Your task to perform on an android device: Open my contact list Image 0: 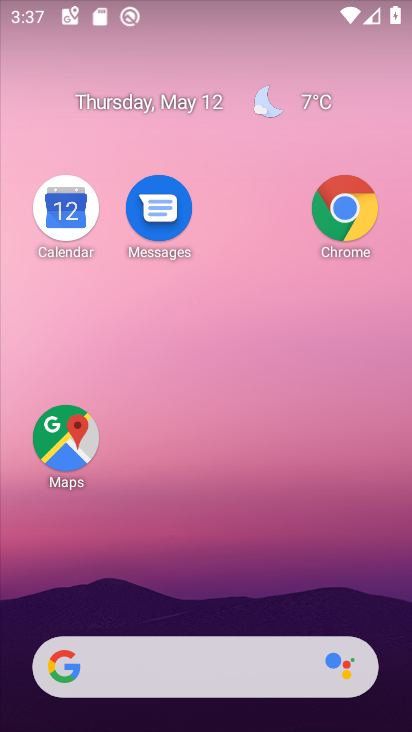
Step 0: click (224, 228)
Your task to perform on an android device: Open my contact list Image 1: 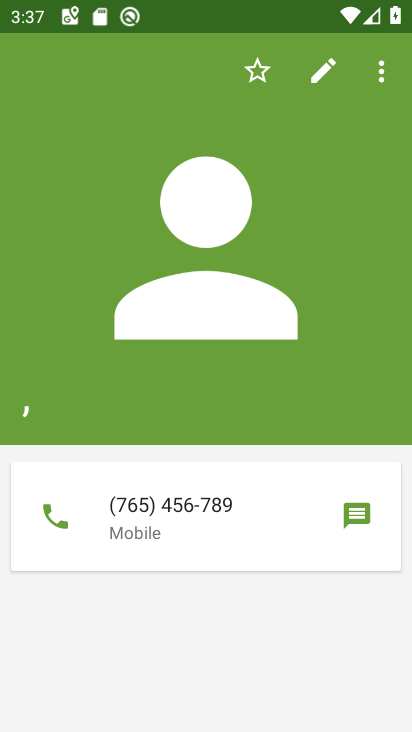
Step 1: press home button
Your task to perform on an android device: Open my contact list Image 2: 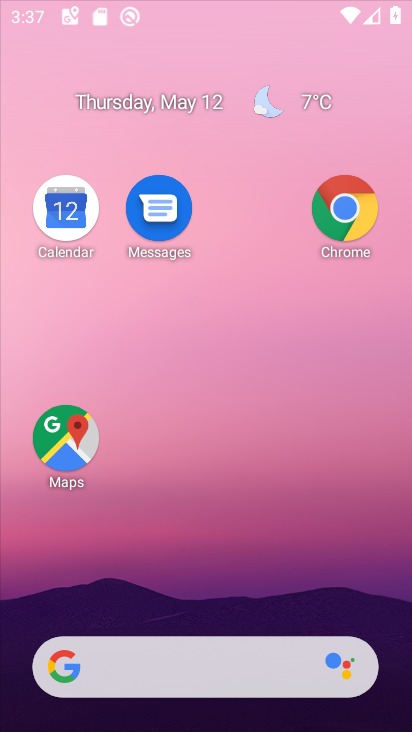
Step 2: drag from (215, 684) to (227, 244)
Your task to perform on an android device: Open my contact list Image 3: 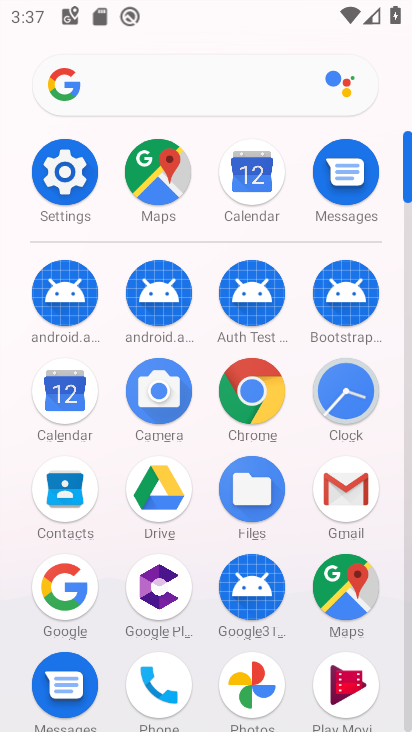
Step 3: click (69, 396)
Your task to perform on an android device: Open my contact list Image 4: 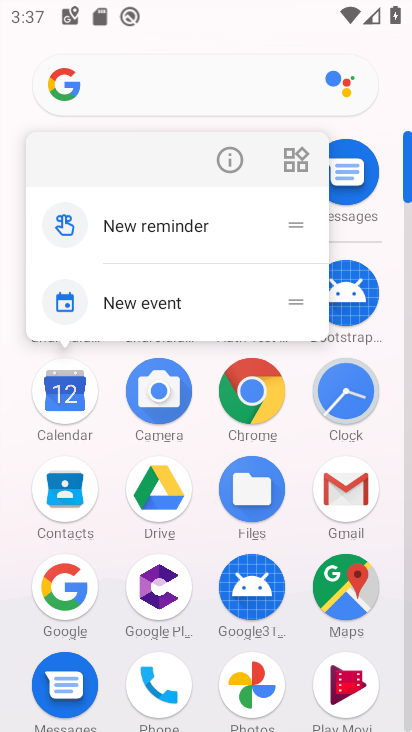
Step 4: click (228, 153)
Your task to perform on an android device: Open my contact list Image 5: 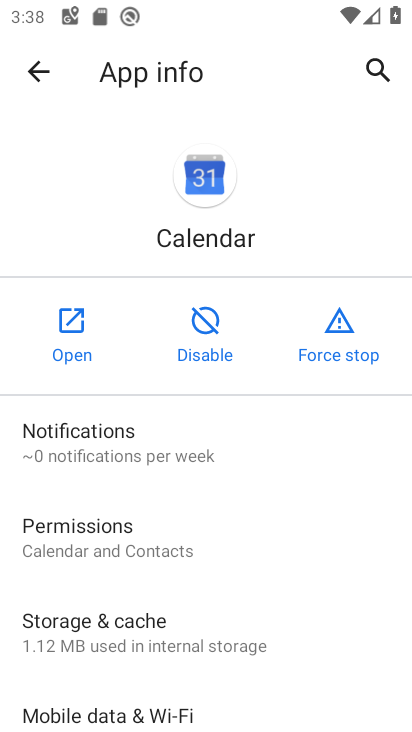
Step 5: click (61, 322)
Your task to perform on an android device: Open my contact list Image 6: 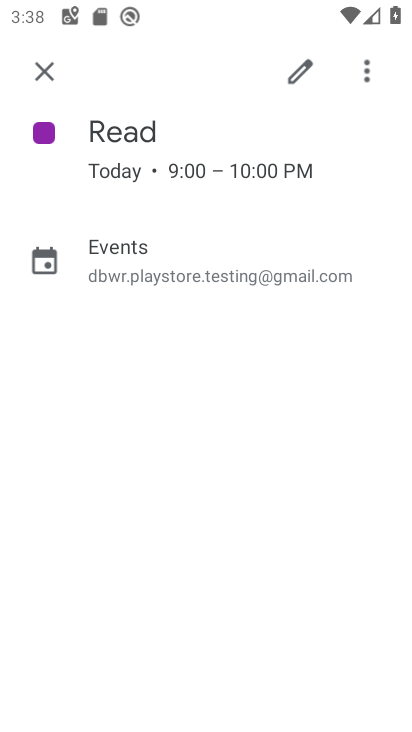
Step 6: click (35, 67)
Your task to perform on an android device: Open my contact list Image 7: 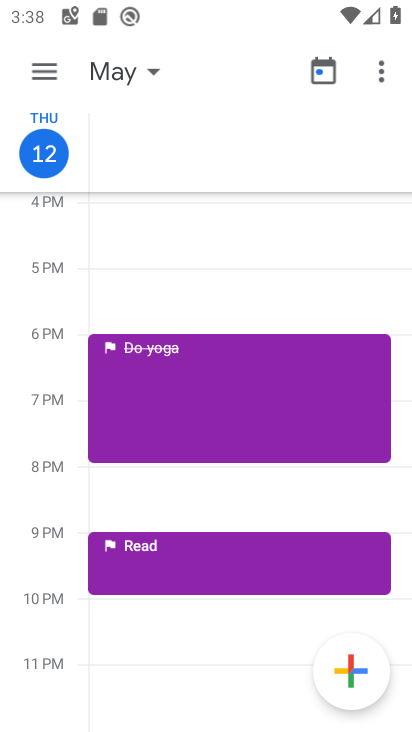
Step 7: press home button
Your task to perform on an android device: Open my contact list Image 8: 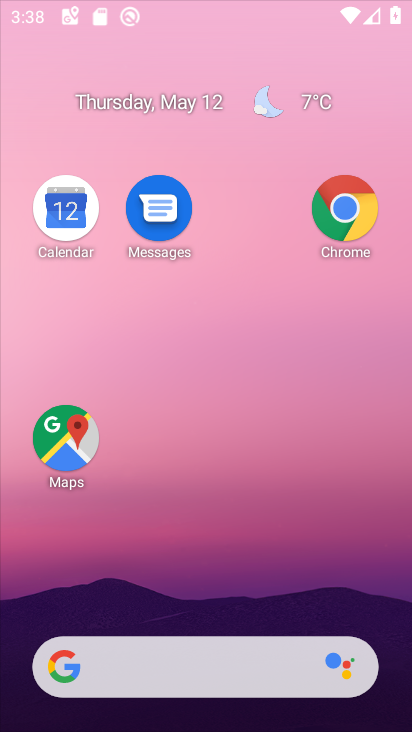
Step 8: drag from (218, 589) to (258, 187)
Your task to perform on an android device: Open my contact list Image 9: 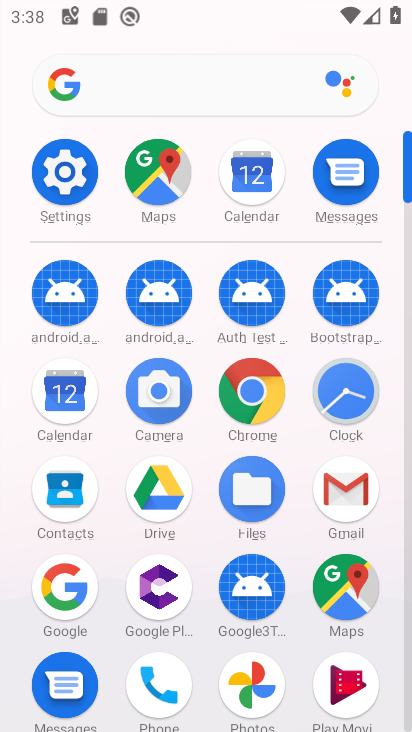
Step 9: click (85, 487)
Your task to perform on an android device: Open my contact list Image 10: 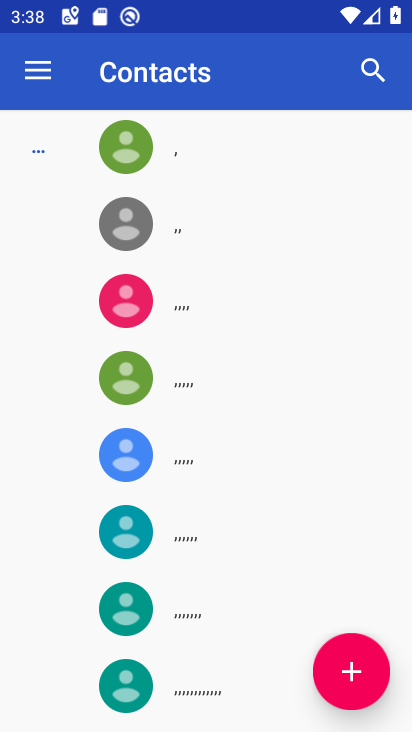
Step 10: task complete